Your task to perform on an android device: refresh tabs in the chrome app Image 0: 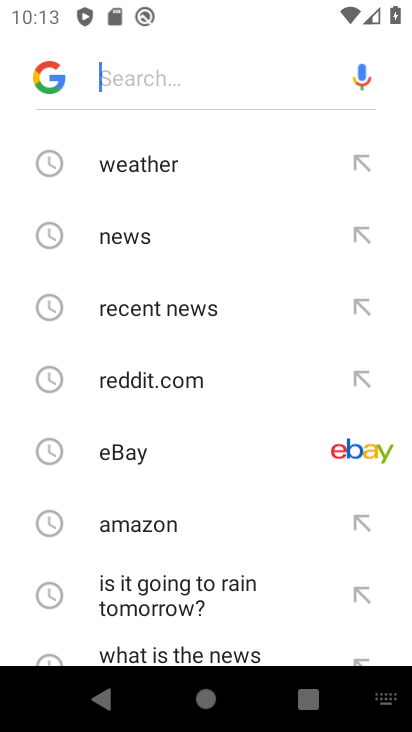
Step 0: press home button
Your task to perform on an android device: refresh tabs in the chrome app Image 1: 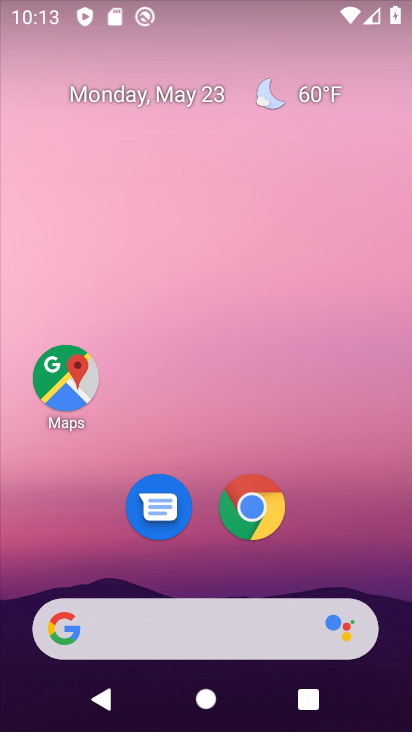
Step 1: click (254, 509)
Your task to perform on an android device: refresh tabs in the chrome app Image 2: 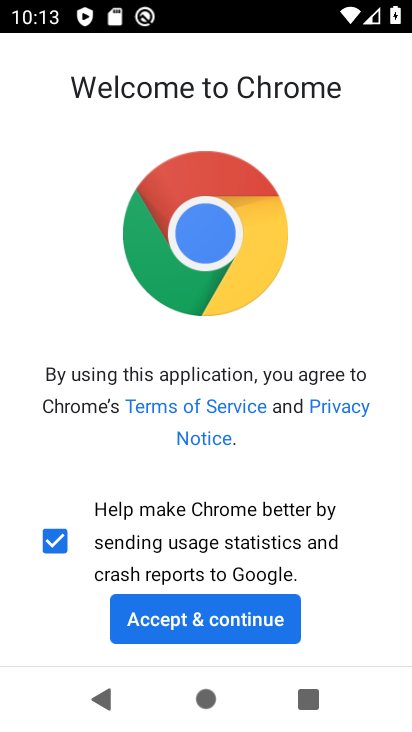
Step 2: click (208, 622)
Your task to perform on an android device: refresh tabs in the chrome app Image 3: 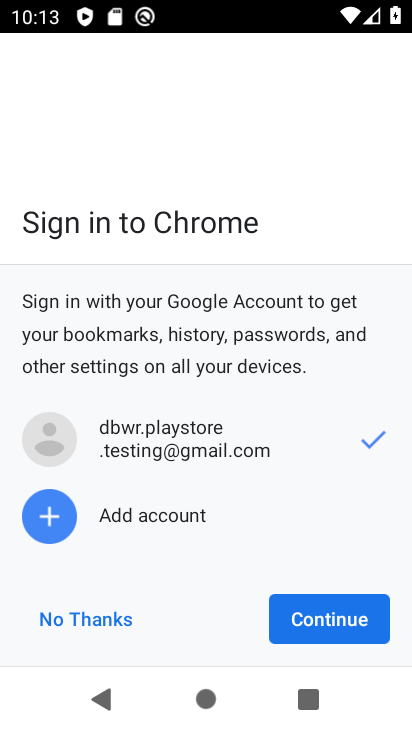
Step 3: click (315, 612)
Your task to perform on an android device: refresh tabs in the chrome app Image 4: 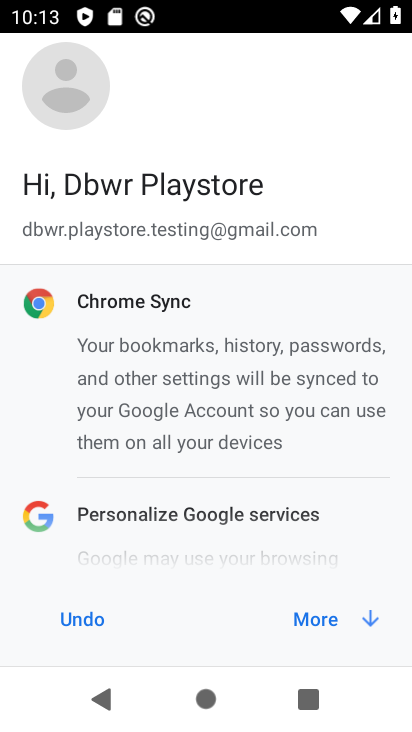
Step 4: click (317, 620)
Your task to perform on an android device: refresh tabs in the chrome app Image 5: 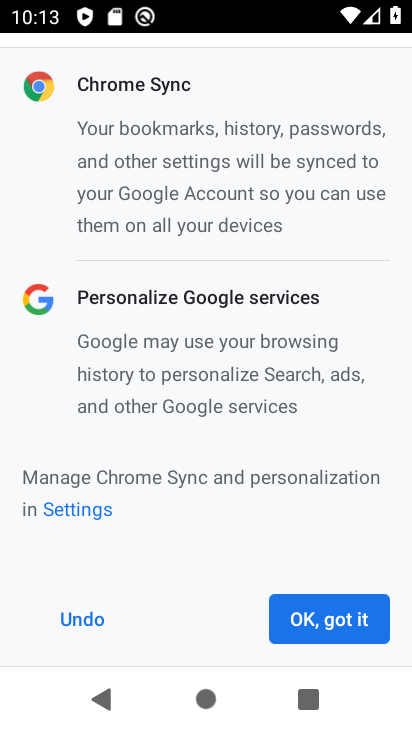
Step 5: click (317, 620)
Your task to perform on an android device: refresh tabs in the chrome app Image 6: 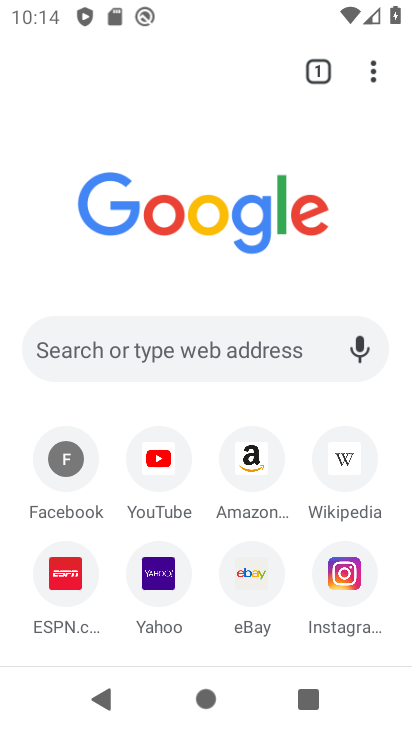
Step 6: click (372, 72)
Your task to perform on an android device: refresh tabs in the chrome app Image 7: 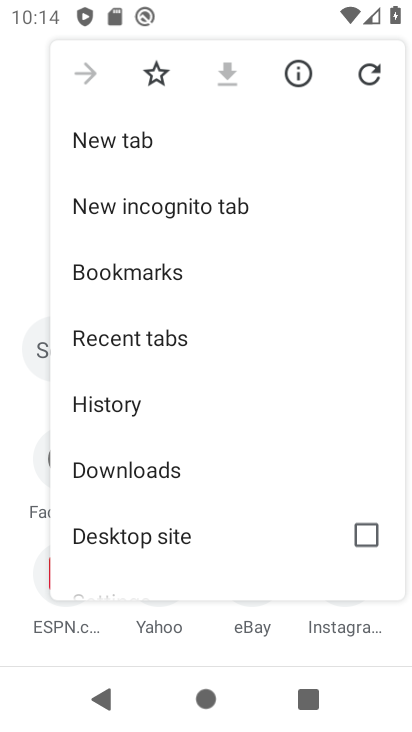
Step 7: click (374, 77)
Your task to perform on an android device: refresh tabs in the chrome app Image 8: 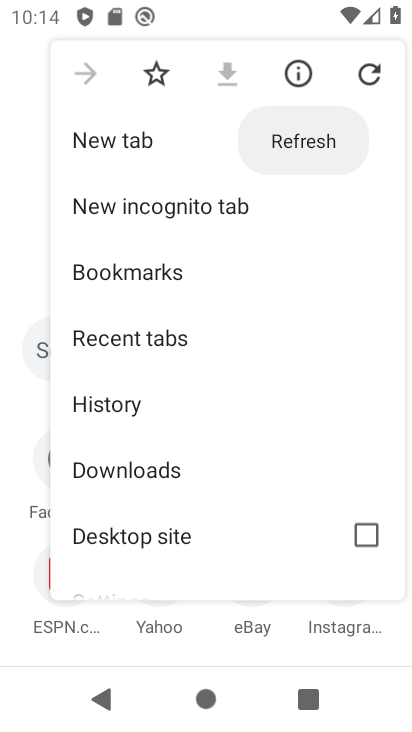
Step 8: click (374, 77)
Your task to perform on an android device: refresh tabs in the chrome app Image 9: 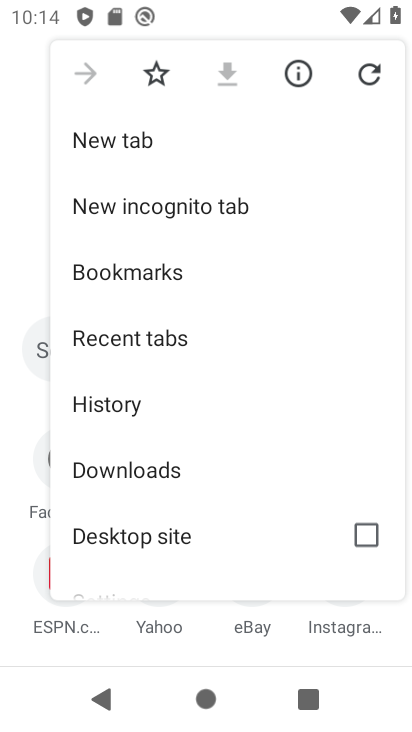
Step 9: task complete